Your task to perform on an android device: Go to Maps Image 0: 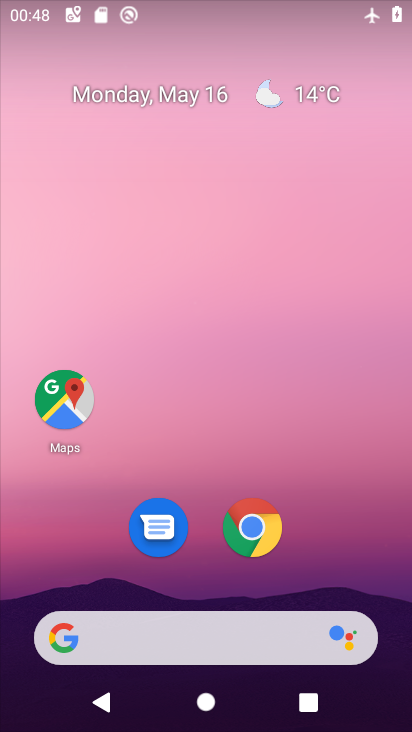
Step 0: click (82, 400)
Your task to perform on an android device: Go to Maps Image 1: 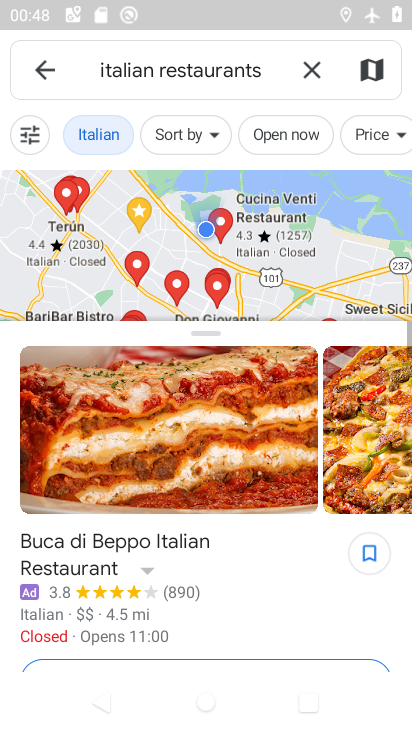
Step 1: click (38, 63)
Your task to perform on an android device: Go to Maps Image 2: 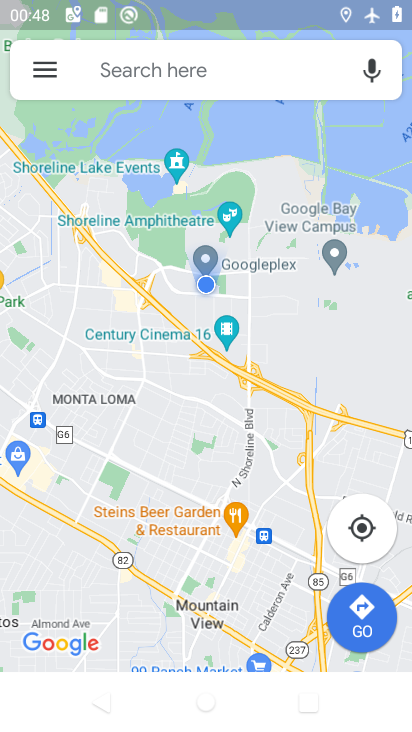
Step 2: task complete